Your task to perform on an android device: refresh tabs in the chrome app Image 0: 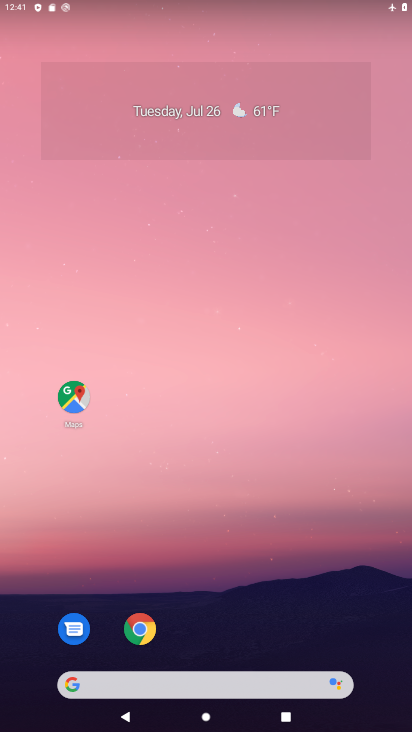
Step 0: drag from (202, 650) to (207, 133)
Your task to perform on an android device: refresh tabs in the chrome app Image 1: 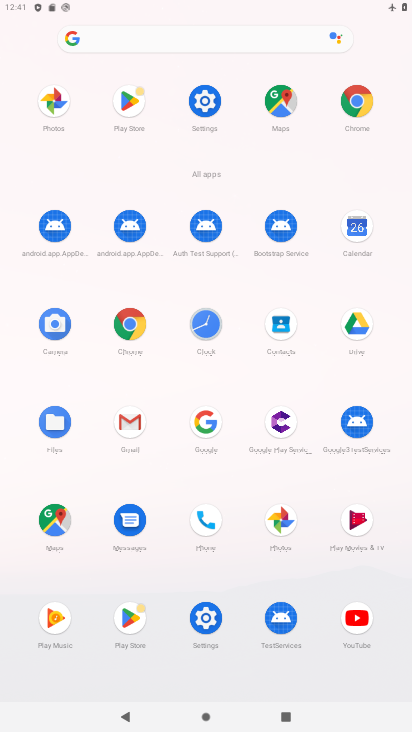
Step 1: click (133, 331)
Your task to perform on an android device: refresh tabs in the chrome app Image 2: 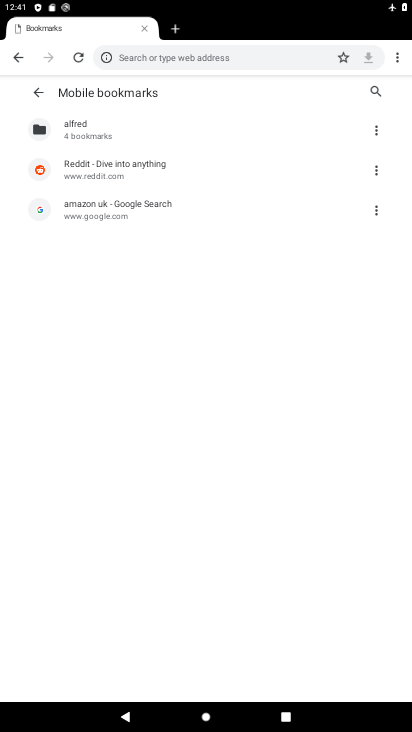
Step 2: click (397, 54)
Your task to perform on an android device: refresh tabs in the chrome app Image 3: 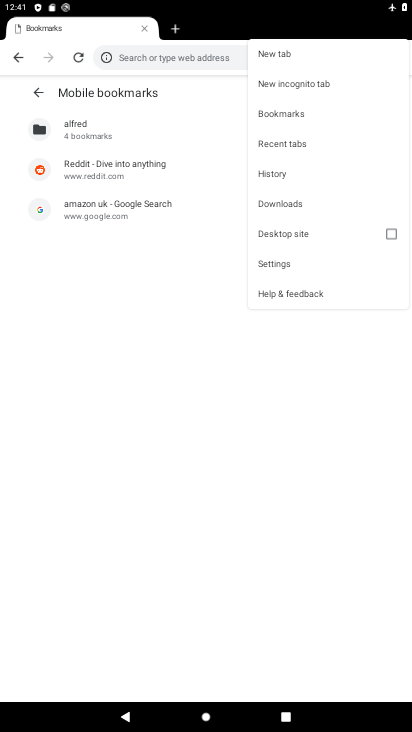
Step 3: click (74, 61)
Your task to perform on an android device: refresh tabs in the chrome app Image 4: 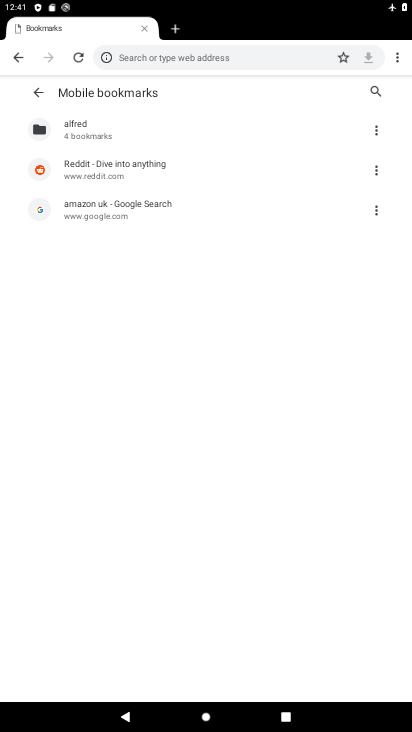
Step 4: click (77, 55)
Your task to perform on an android device: refresh tabs in the chrome app Image 5: 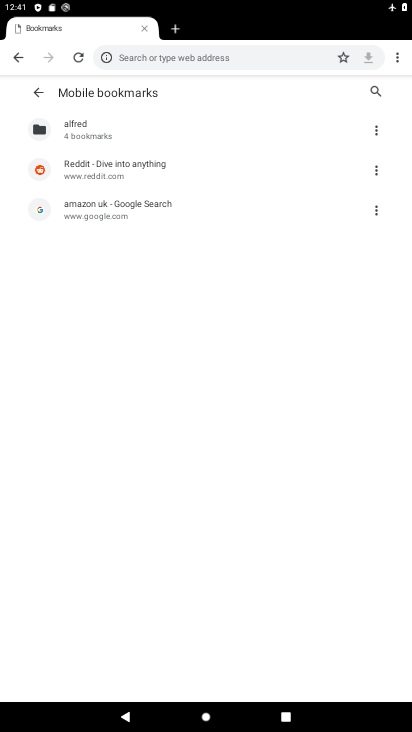
Step 5: task complete